Your task to perform on an android device: Open privacy settings Image 0: 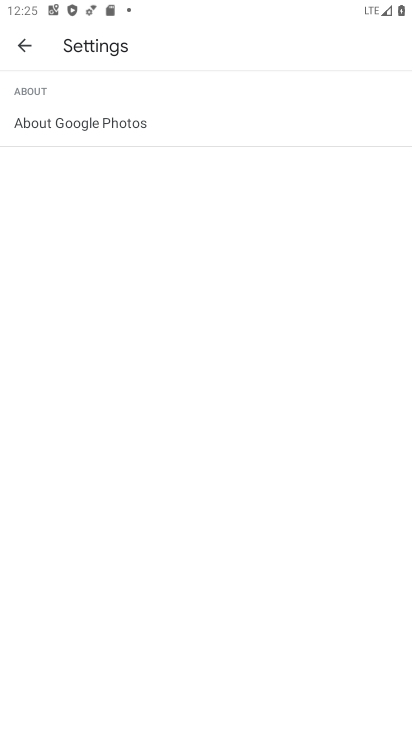
Step 0: press home button
Your task to perform on an android device: Open privacy settings Image 1: 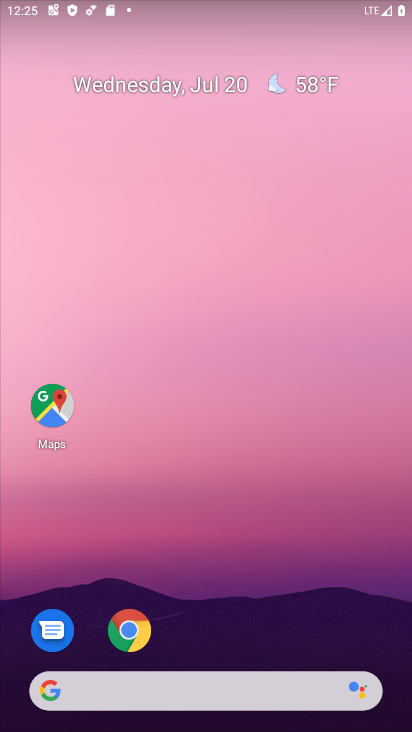
Step 1: drag from (228, 666) to (215, 285)
Your task to perform on an android device: Open privacy settings Image 2: 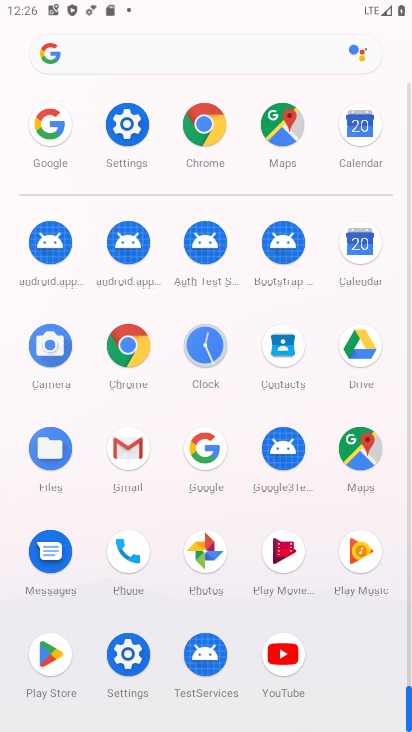
Step 2: click (122, 114)
Your task to perform on an android device: Open privacy settings Image 3: 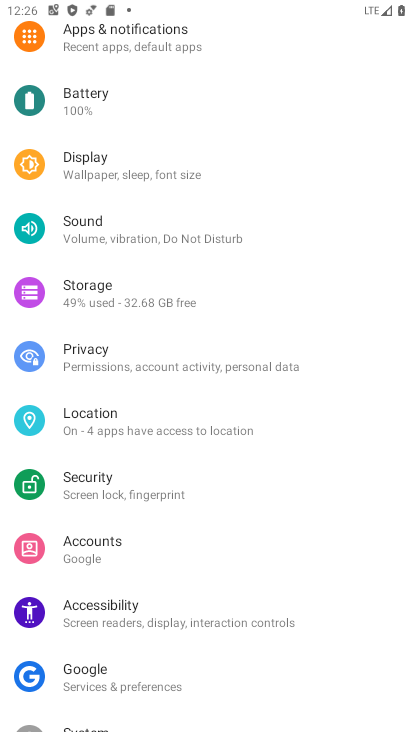
Step 3: drag from (126, 525) to (110, 280)
Your task to perform on an android device: Open privacy settings Image 4: 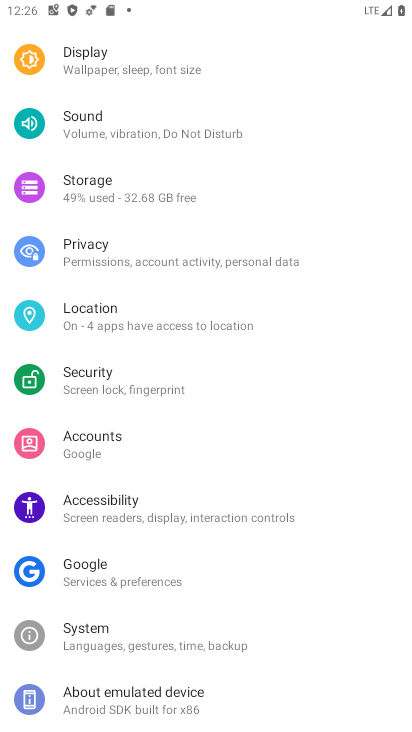
Step 4: click (130, 250)
Your task to perform on an android device: Open privacy settings Image 5: 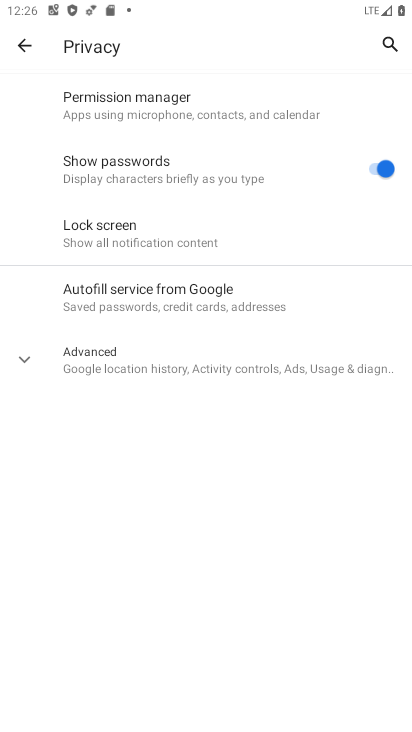
Step 5: task complete